Your task to perform on an android device: Toggle the flashlight Image 0: 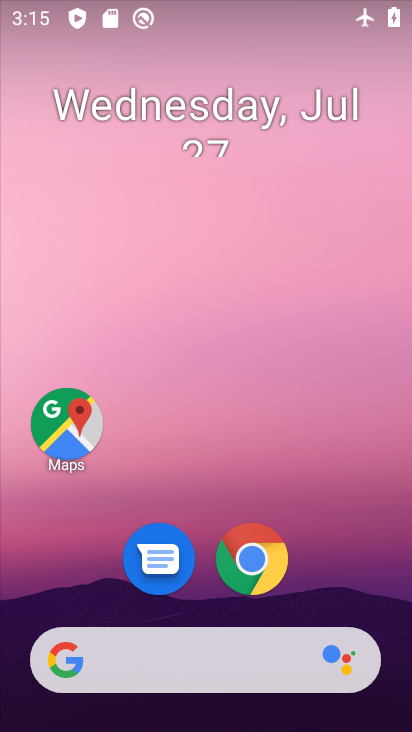
Step 0: drag from (75, 618) to (274, 14)
Your task to perform on an android device: Toggle the flashlight Image 1: 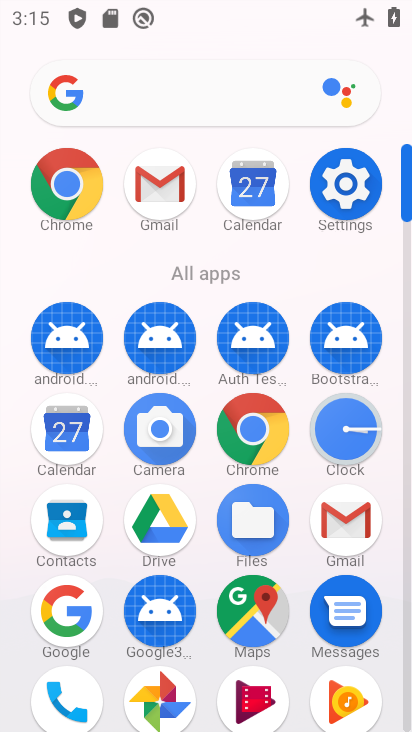
Step 1: click (340, 179)
Your task to perform on an android device: Toggle the flashlight Image 2: 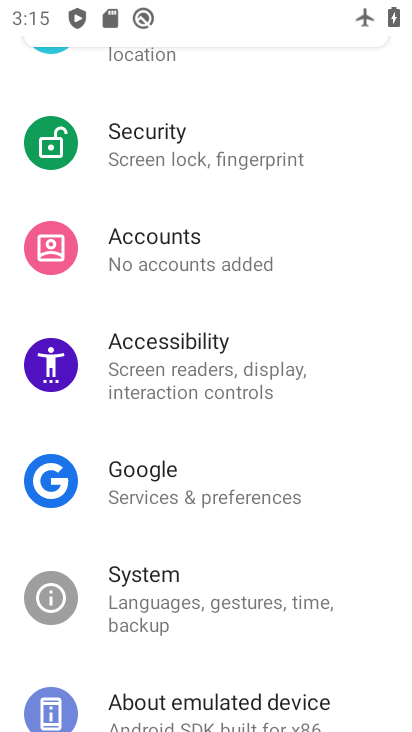
Step 2: drag from (179, 88) to (150, 552)
Your task to perform on an android device: Toggle the flashlight Image 3: 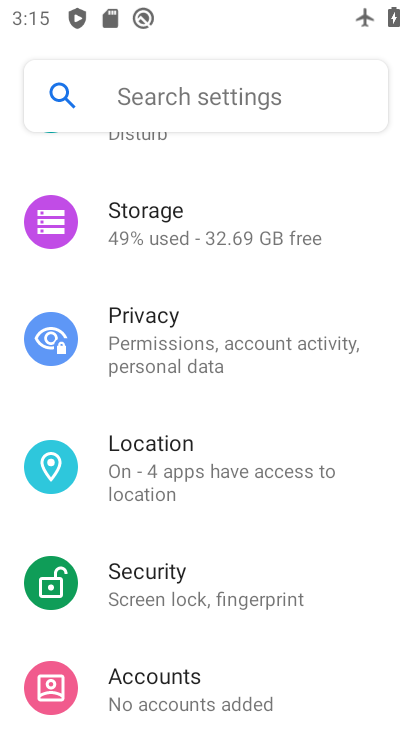
Step 3: click (162, 91)
Your task to perform on an android device: Toggle the flashlight Image 4: 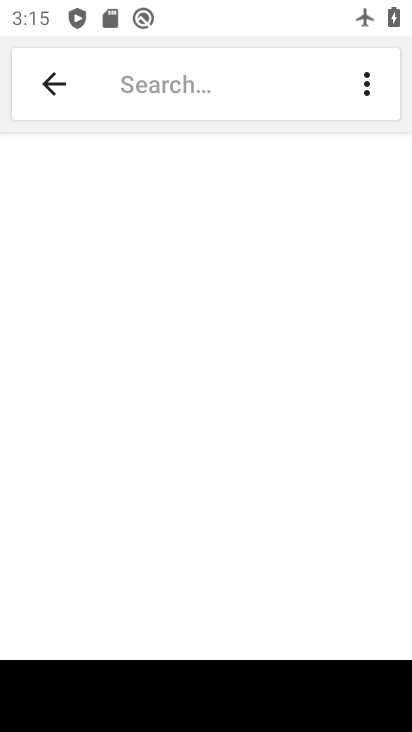
Step 4: type "flashlight"
Your task to perform on an android device: Toggle the flashlight Image 5: 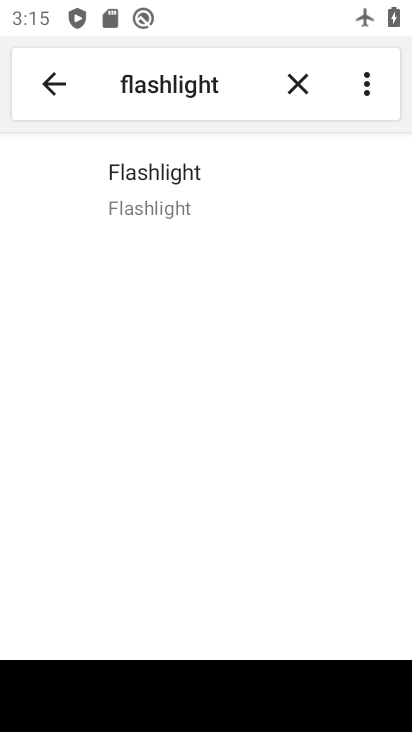
Step 5: click (155, 192)
Your task to perform on an android device: Toggle the flashlight Image 6: 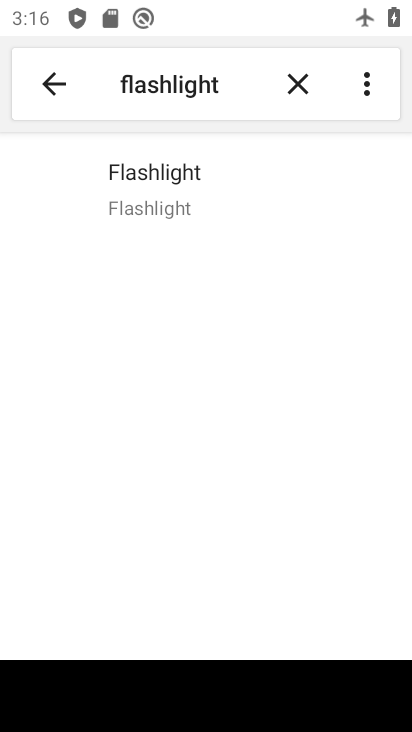
Step 6: task complete